Your task to perform on an android device: toggle airplane mode Image 0: 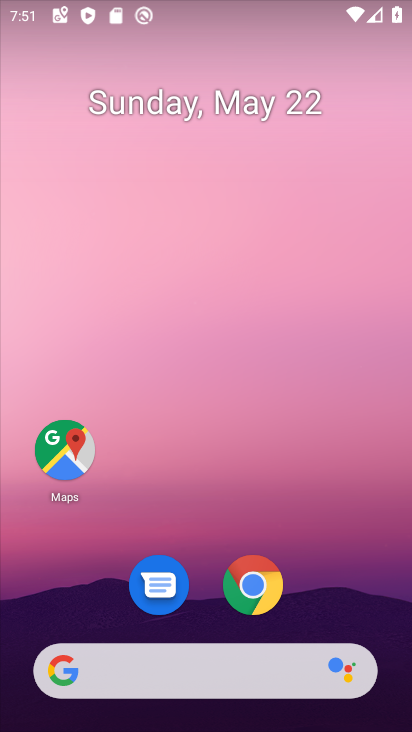
Step 0: drag from (214, 488) to (179, 50)
Your task to perform on an android device: toggle airplane mode Image 1: 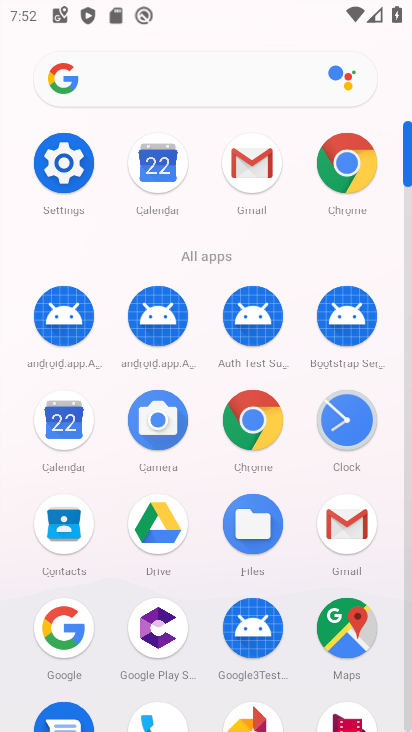
Step 1: click (74, 168)
Your task to perform on an android device: toggle airplane mode Image 2: 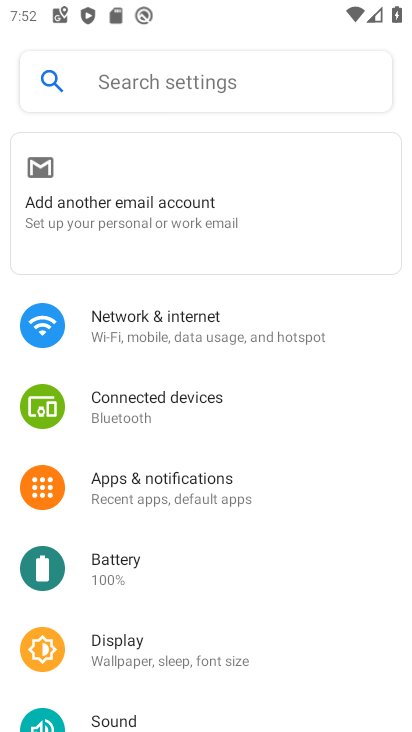
Step 2: click (162, 325)
Your task to perform on an android device: toggle airplane mode Image 3: 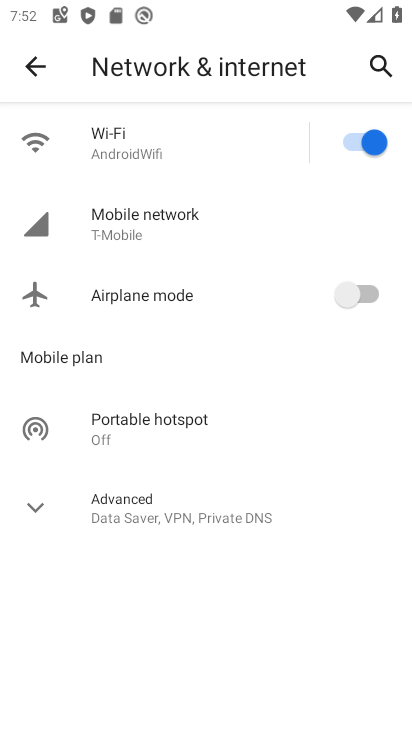
Step 3: click (352, 286)
Your task to perform on an android device: toggle airplane mode Image 4: 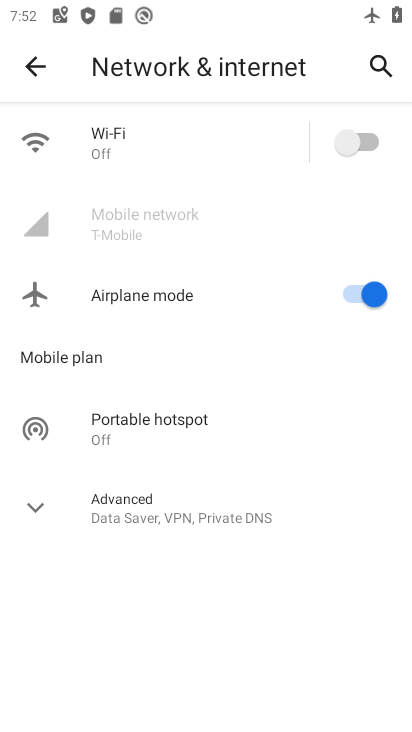
Step 4: task complete